Your task to perform on an android device: Open Google Maps Image 0: 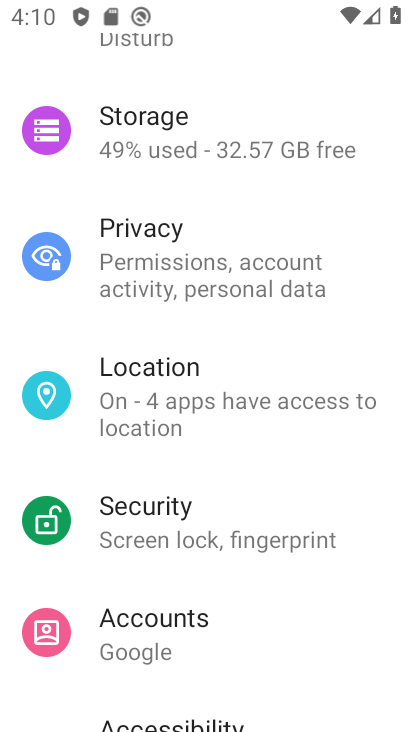
Step 0: press home button
Your task to perform on an android device: Open Google Maps Image 1: 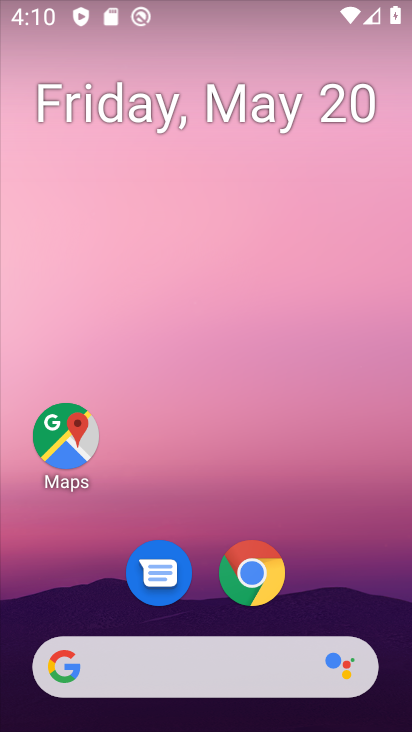
Step 1: click (78, 426)
Your task to perform on an android device: Open Google Maps Image 2: 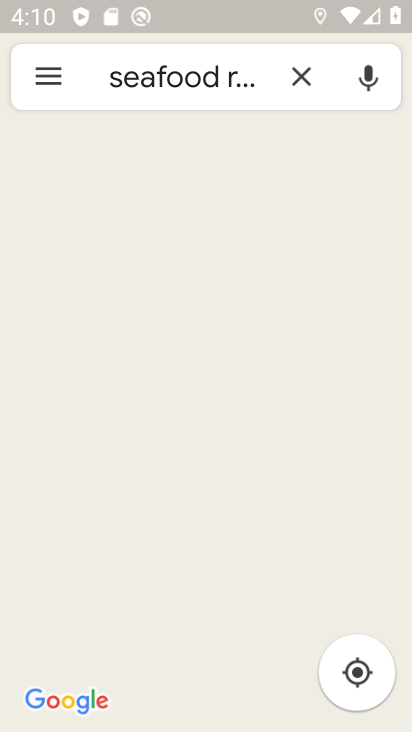
Step 2: click (302, 89)
Your task to perform on an android device: Open Google Maps Image 3: 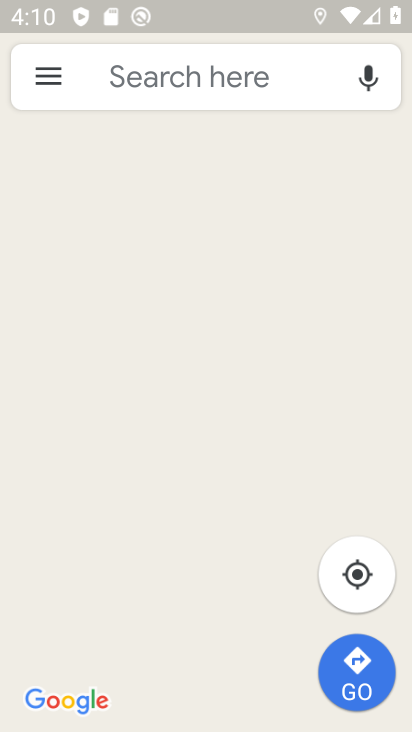
Step 3: task complete